Your task to perform on an android device: Open my contact list Image 0: 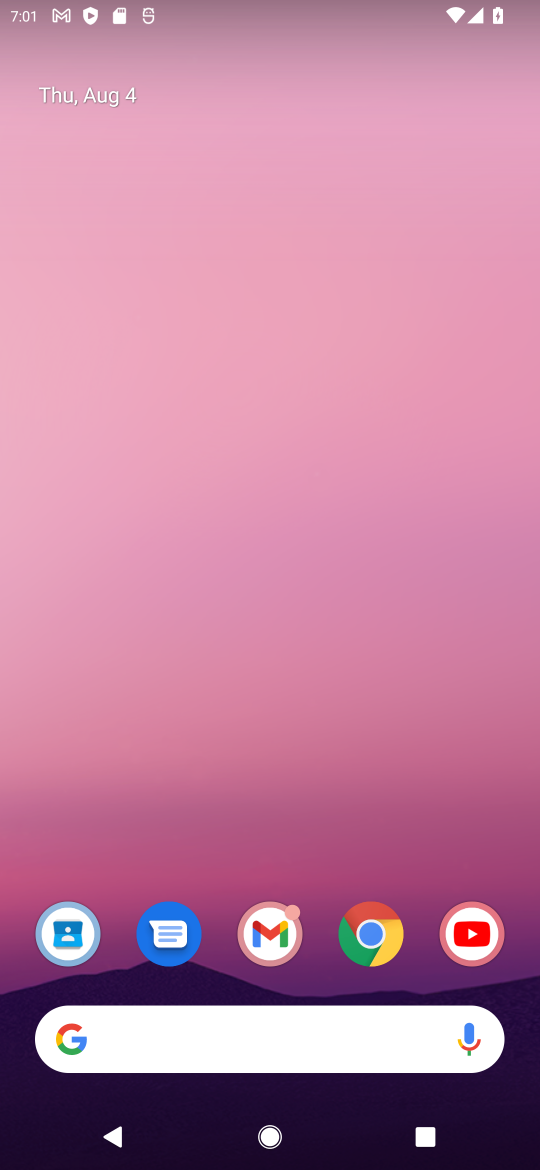
Step 0: drag from (254, 1034) to (73, 26)
Your task to perform on an android device: Open my contact list Image 1: 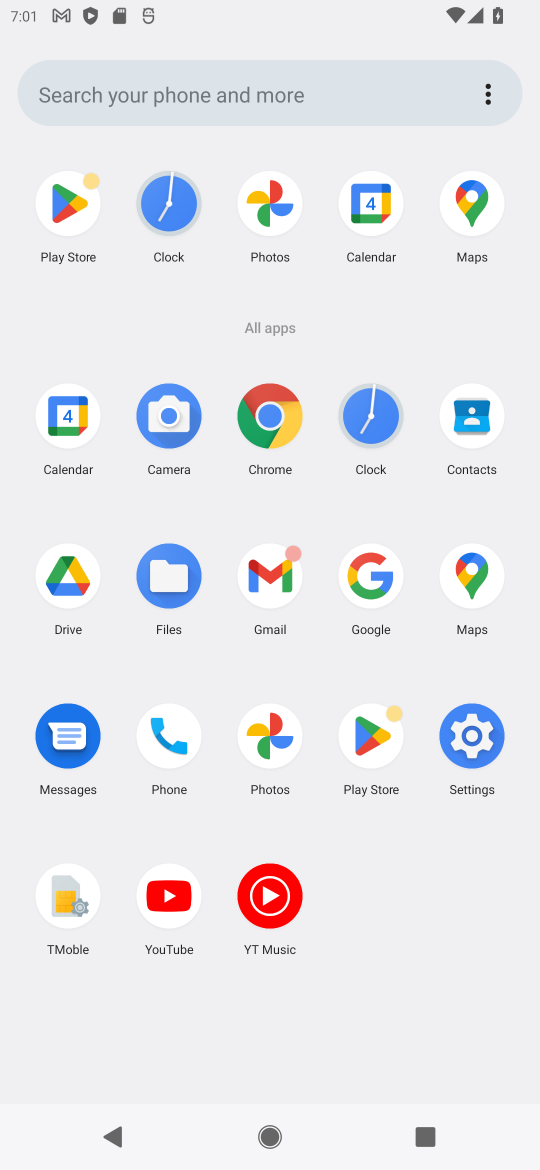
Step 1: click (490, 430)
Your task to perform on an android device: Open my contact list Image 2: 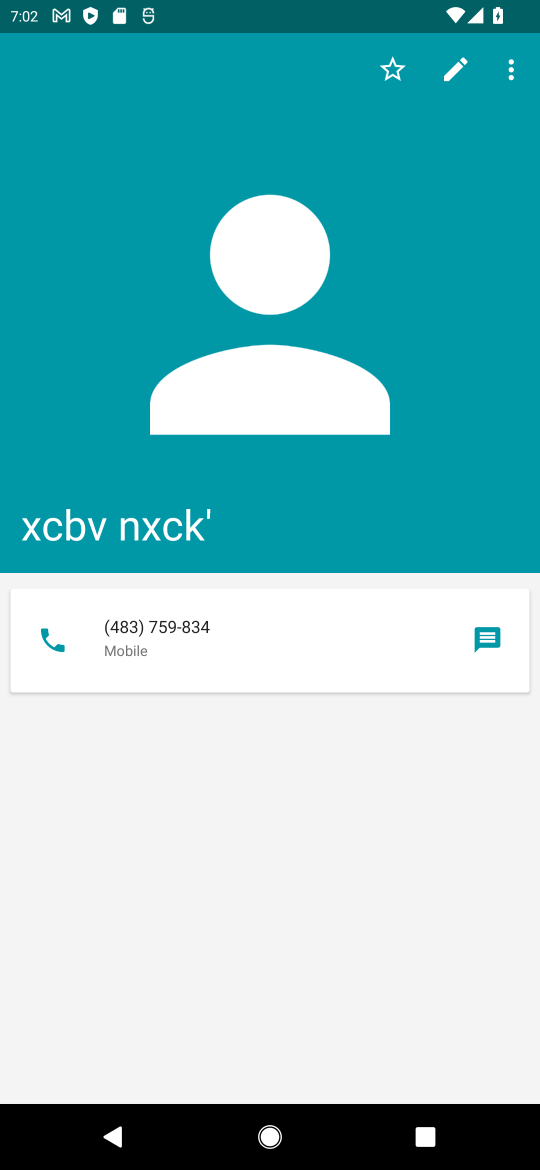
Step 2: task complete